Your task to perform on an android device: Open Youtube and go to the subscriptions tab Image 0: 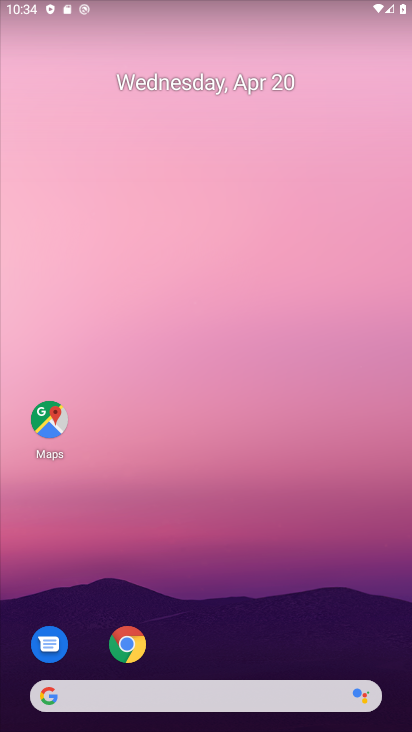
Step 0: drag from (368, 646) to (352, 150)
Your task to perform on an android device: Open Youtube and go to the subscriptions tab Image 1: 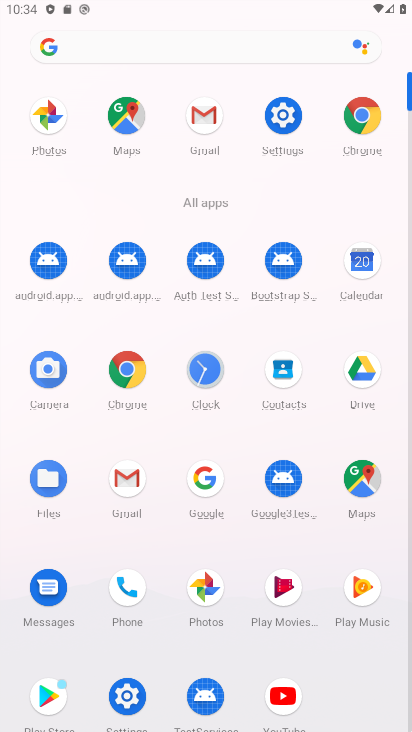
Step 1: click (277, 698)
Your task to perform on an android device: Open Youtube and go to the subscriptions tab Image 2: 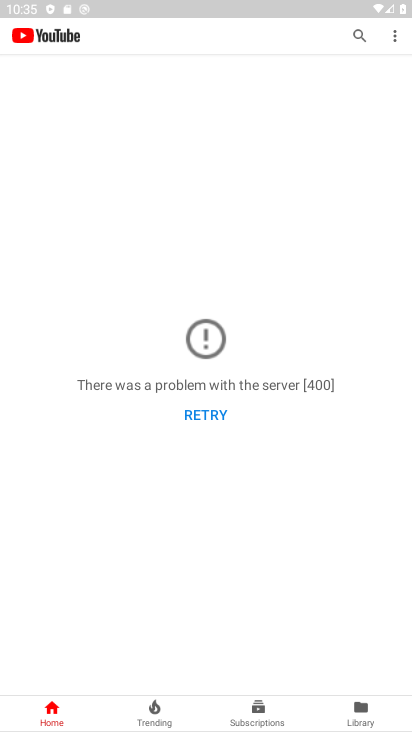
Step 2: click (269, 712)
Your task to perform on an android device: Open Youtube and go to the subscriptions tab Image 3: 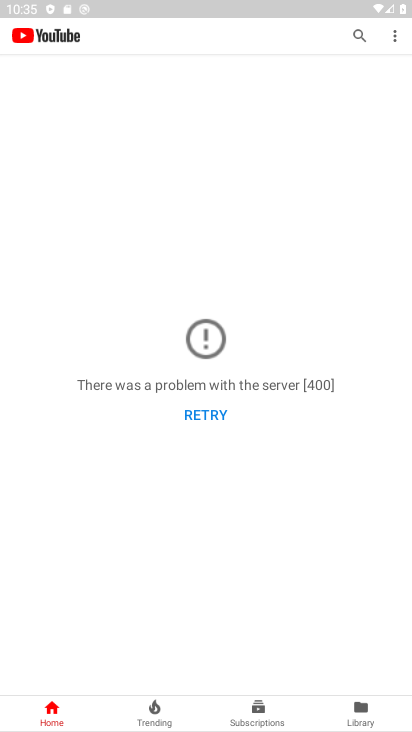
Step 3: click (254, 708)
Your task to perform on an android device: Open Youtube and go to the subscriptions tab Image 4: 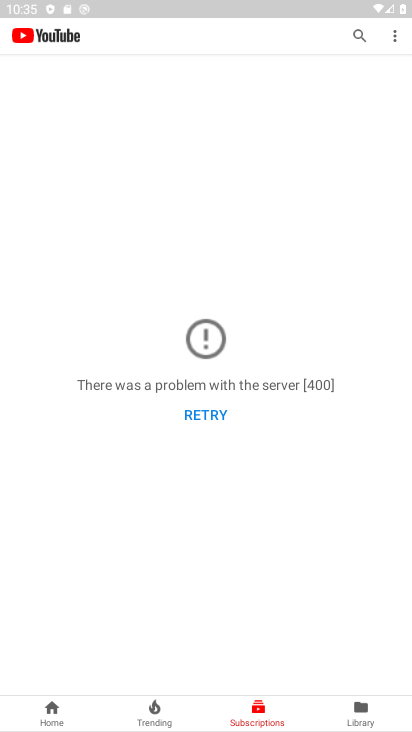
Step 4: task complete